Your task to perform on an android device: toggle sleep mode Image 0: 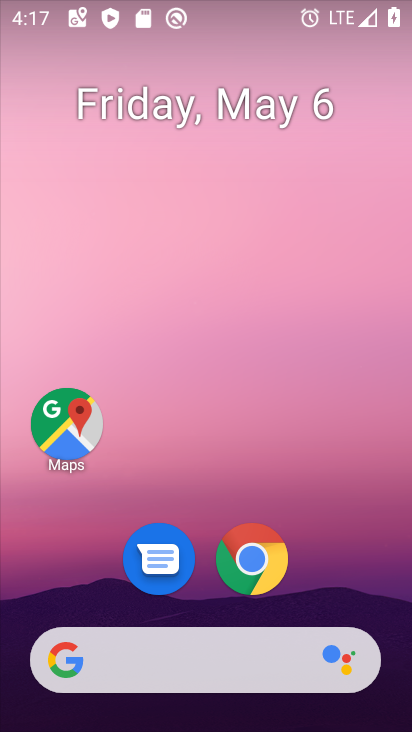
Step 0: drag from (217, 633) to (211, 201)
Your task to perform on an android device: toggle sleep mode Image 1: 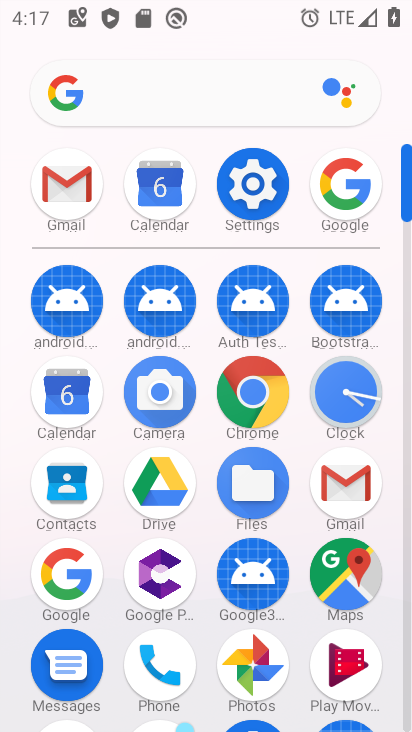
Step 1: click (254, 192)
Your task to perform on an android device: toggle sleep mode Image 2: 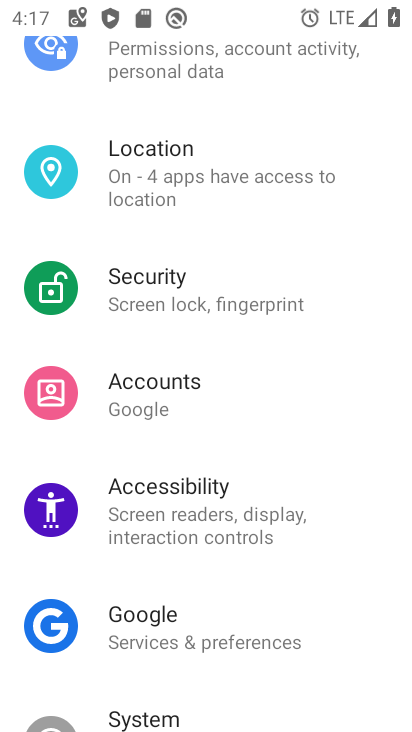
Step 2: drag from (248, 153) to (267, 529)
Your task to perform on an android device: toggle sleep mode Image 3: 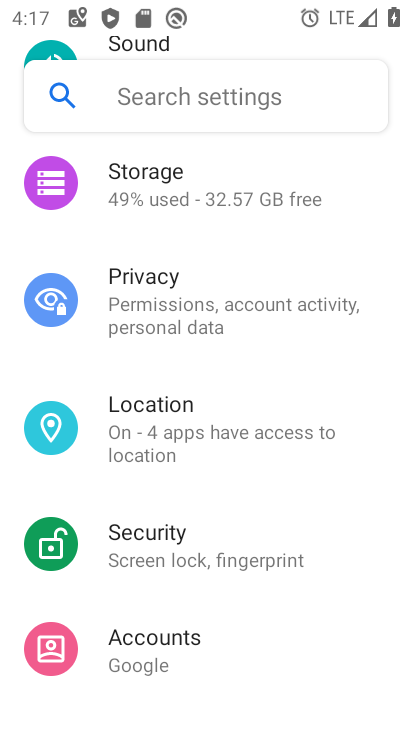
Step 3: drag from (230, 167) to (238, 528)
Your task to perform on an android device: toggle sleep mode Image 4: 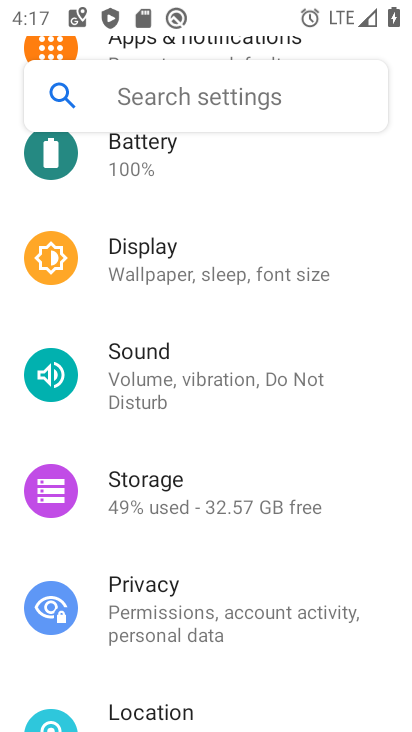
Step 4: drag from (209, 195) to (240, 507)
Your task to perform on an android device: toggle sleep mode Image 5: 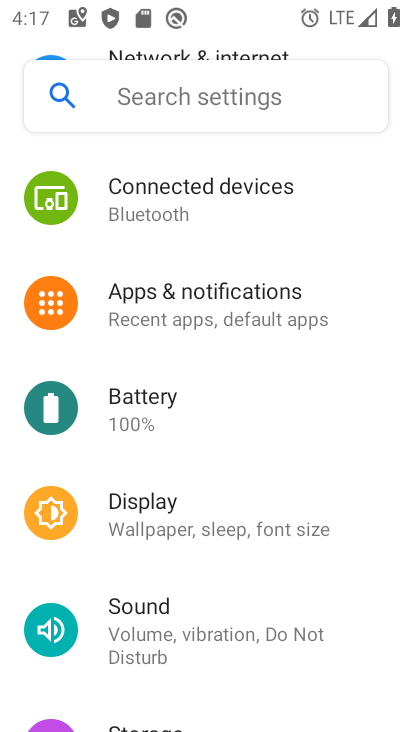
Step 5: drag from (215, 163) to (185, 514)
Your task to perform on an android device: toggle sleep mode Image 6: 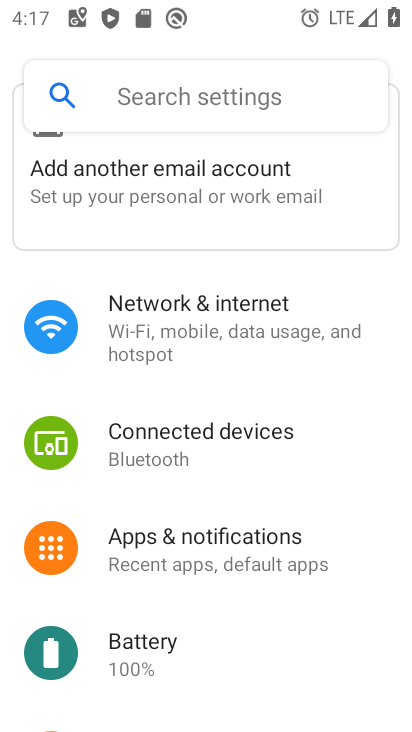
Step 6: drag from (228, 670) to (173, 351)
Your task to perform on an android device: toggle sleep mode Image 7: 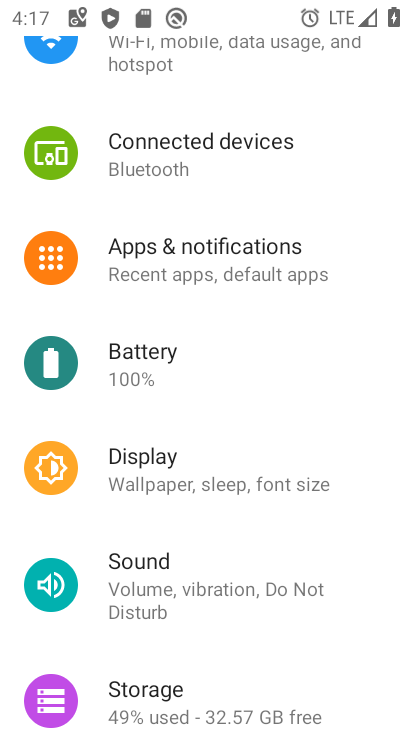
Step 7: click (246, 502)
Your task to perform on an android device: toggle sleep mode Image 8: 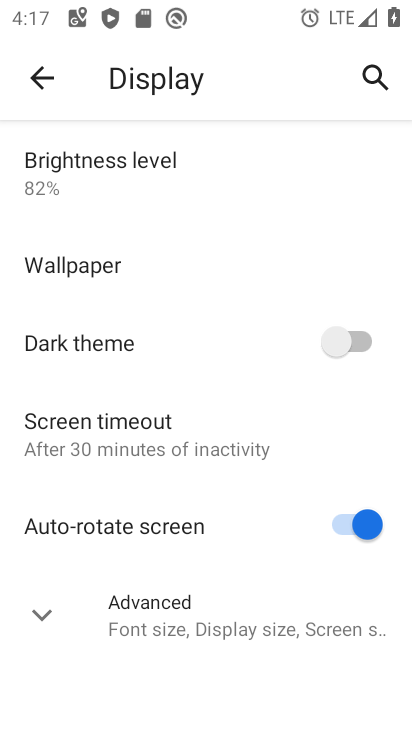
Step 8: click (94, 436)
Your task to perform on an android device: toggle sleep mode Image 9: 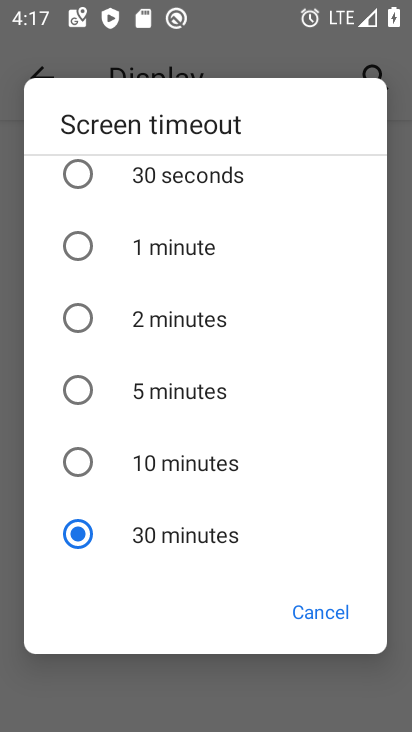
Step 9: click (75, 457)
Your task to perform on an android device: toggle sleep mode Image 10: 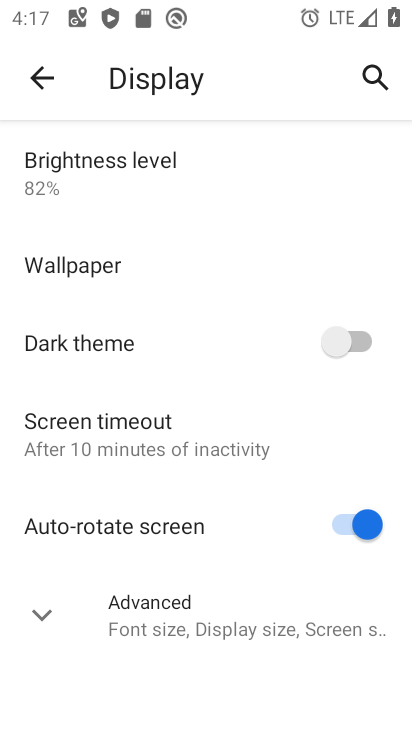
Step 10: task complete